Your task to perform on an android device: open app "Messenger Lite" (install if not already installed) and enter user name: "cataclysmic@outlook.com" and password: "victoriously" Image 0: 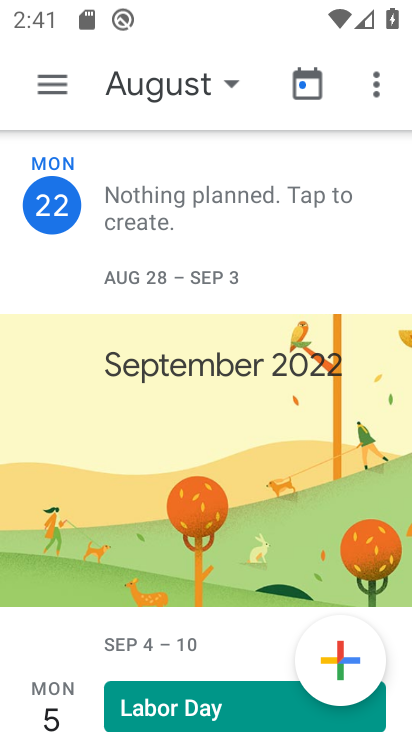
Step 0: press home button
Your task to perform on an android device: open app "Messenger Lite" (install if not already installed) and enter user name: "cataclysmic@outlook.com" and password: "victoriously" Image 1: 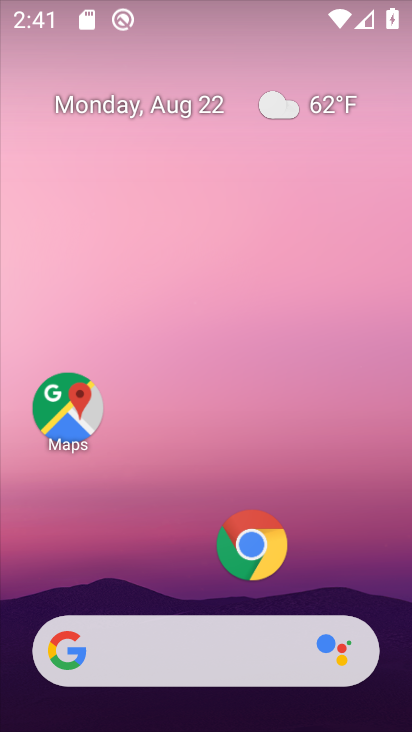
Step 1: drag from (171, 567) to (236, 16)
Your task to perform on an android device: open app "Messenger Lite" (install if not already installed) and enter user name: "cataclysmic@outlook.com" and password: "victoriously" Image 2: 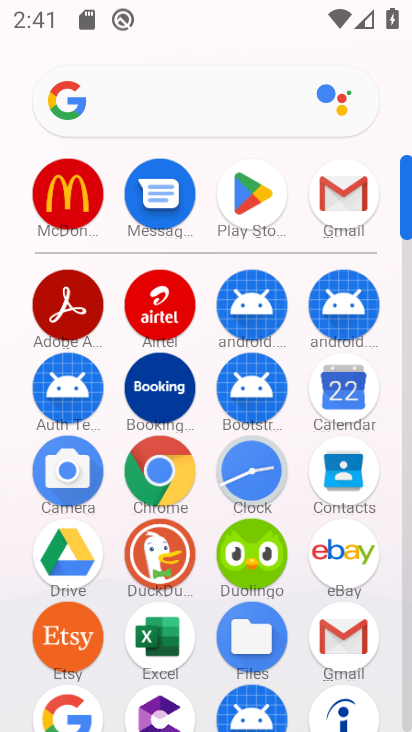
Step 2: click (252, 191)
Your task to perform on an android device: open app "Messenger Lite" (install if not already installed) and enter user name: "cataclysmic@outlook.com" and password: "victoriously" Image 3: 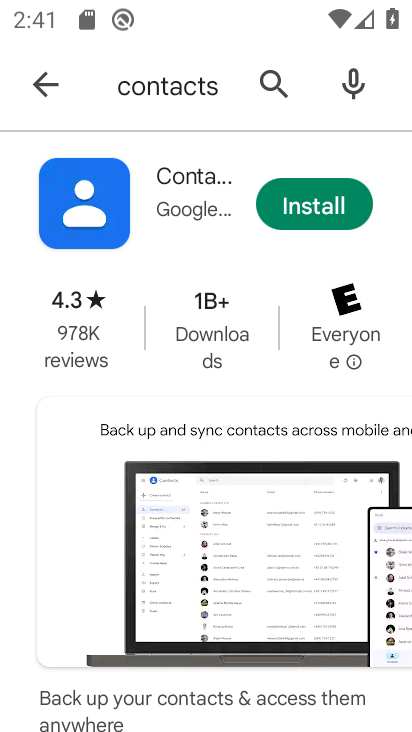
Step 3: click (272, 74)
Your task to perform on an android device: open app "Messenger Lite" (install if not already installed) and enter user name: "cataclysmic@outlook.com" and password: "victoriously" Image 4: 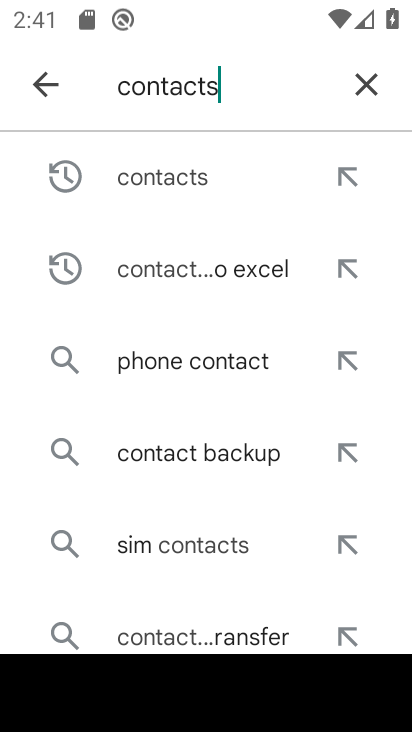
Step 4: click (360, 82)
Your task to perform on an android device: open app "Messenger Lite" (install if not already installed) and enter user name: "cataclysmic@outlook.com" and password: "victoriously" Image 5: 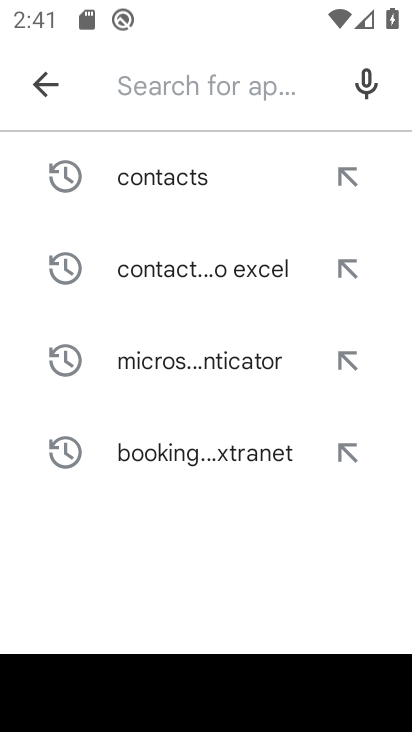
Step 5: click (132, 79)
Your task to perform on an android device: open app "Messenger Lite" (install if not already installed) and enter user name: "cataclysmic@outlook.com" and password: "victoriously" Image 6: 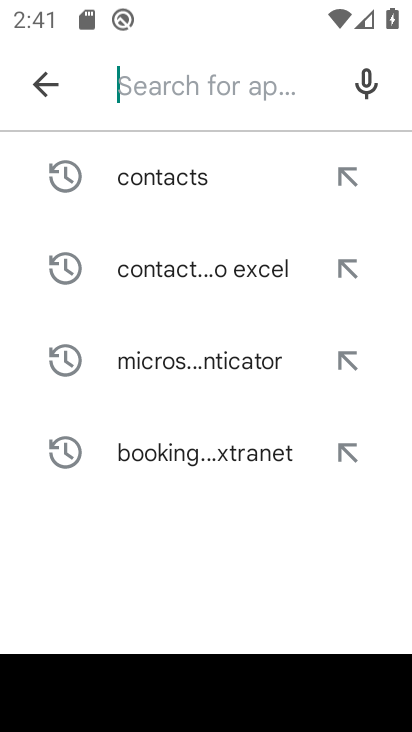
Step 6: type "Messenger Lite"
Your task to perform on an android device: open app "Messenger Lite" (install if not already installed) and enter user name: "cataclysmic@outlook.com" and password: "victoriously" Image 7: 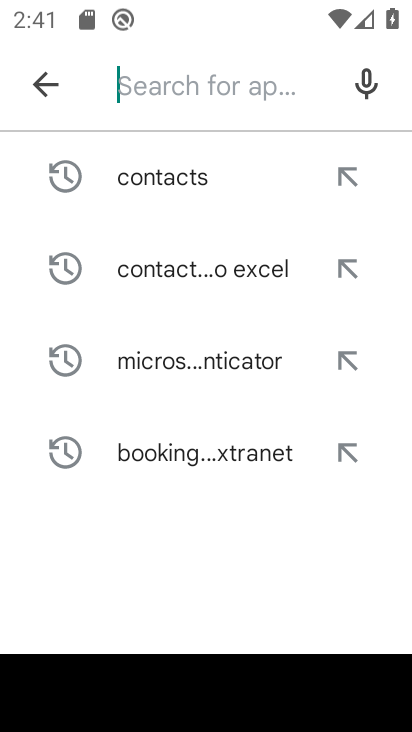
Step 7: click (240, 578)
Your task to perform on an android device: open app "Messenger Lite" (install if not already installed) and enter user name: "cataclysmic@outlook.com" and password: "victoriously" Image 8: 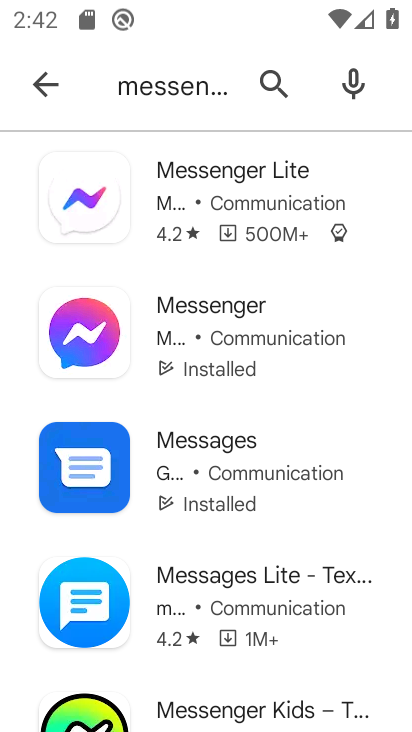
Step 8: click (248, 177)
Your task to perform on an android device: open app "Messenger Lite" (install if not already installed) and enter user name: "cataclysmic@outlook.com" and password: "victoriously" Image 9: 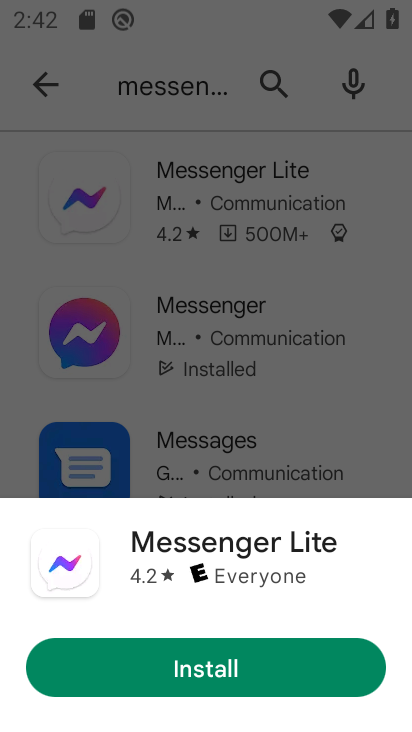
Step 9: click (233, 653)
Your task to perform on an android device: open app "Messenger Lite" (install if not already installed) and enter user name: "cataclysmic@outlook.com" and password: "victoriously" Image 10: 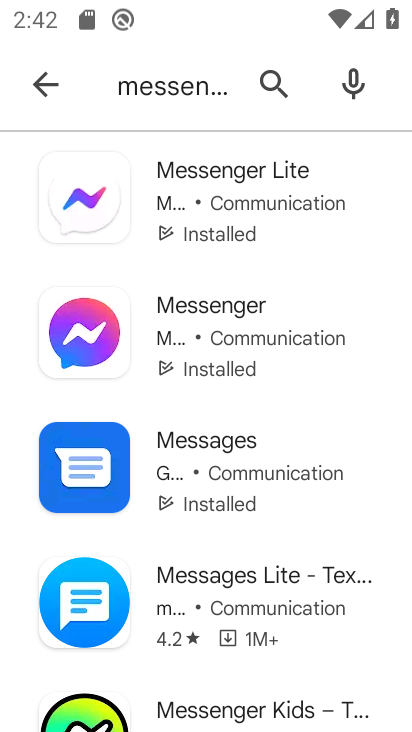
Step 10: click (214, 184)
Your task to perform on an android device: open app "Messenger Lite" (install if not already installed) and enter user name: "cataclysmic@outlook.com" and password: "victoriously" Image 11: 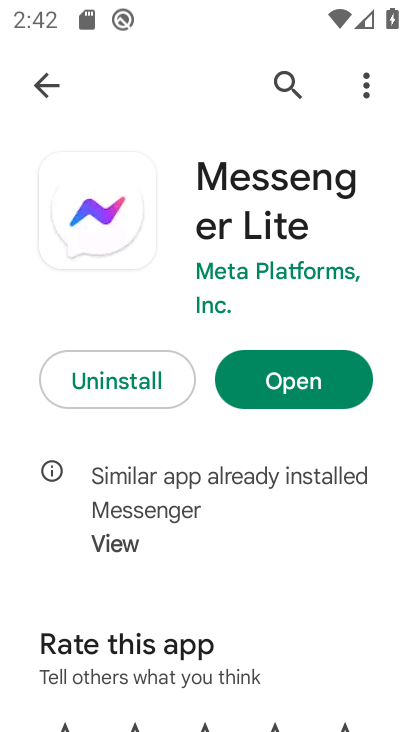
Step 11: click (327, 394)
Your task to perform on an android device: open app "Messenger Lite" (install if not already installed) and enter user name: "cataclysmic@outlook.com" and password: "victoriously" Image 12: 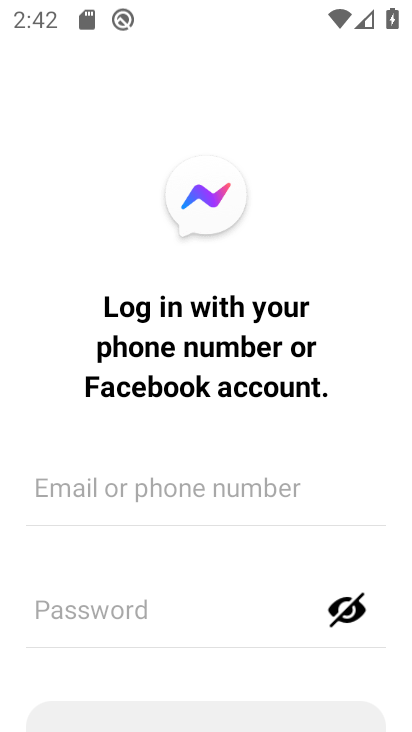
Step 12: click (101, 460)
Your task to perform on an android device: open app "Messenger Lite" (install if not already installed) and enter user name: "cataclysmic@outlook.com" and password: "victoriously" Image 13: 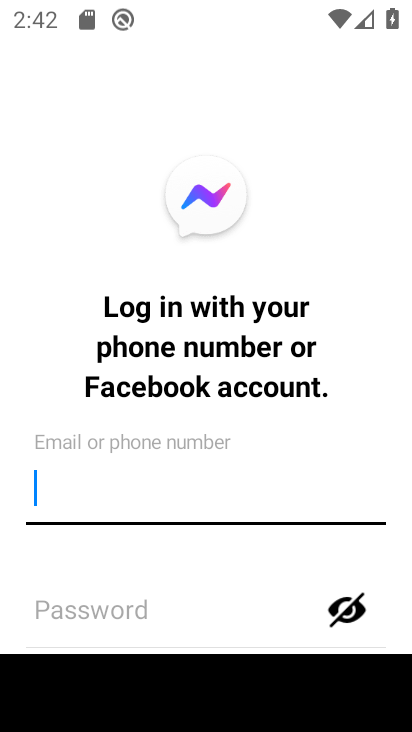
Step 13: click (94, 492)
Your task to perform on an android device: open app "Messenger Lite" (install if not already installed) and enter user name: "cataclysmic@outlook.com" and password: "victoriously" Image 14: 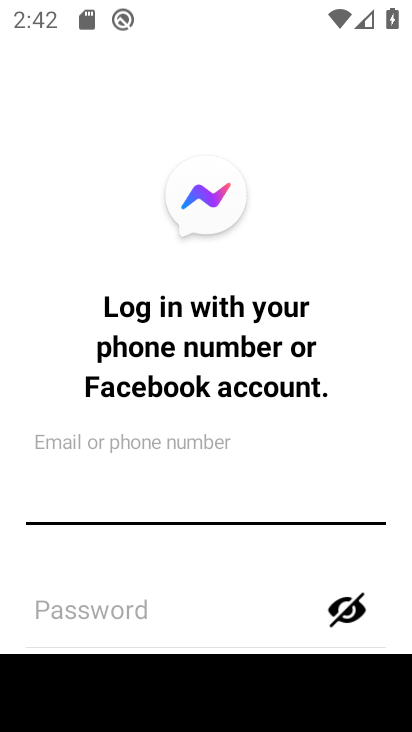
Step 14: type "cataclysmic@outlook.com"
Your task to perform on an android device: open app "Messenger Lite" (install if not already installed) and enter user name: "cataclysmic@outlook.com" and password: "victoriously" Image 15: 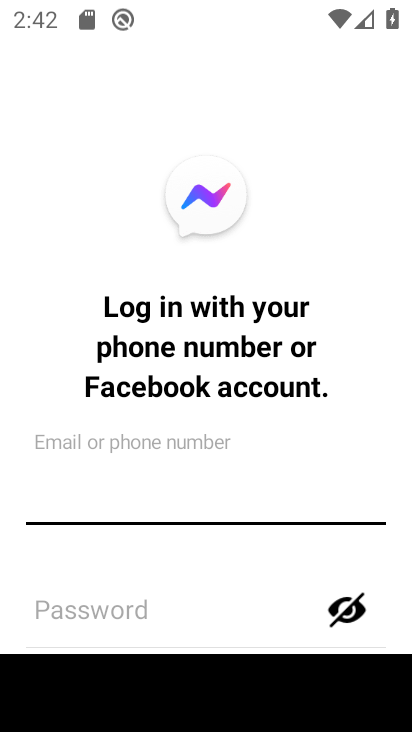
Step 15: click (200, 617)
Your task to perform on an android device: open app "Messenger Lite" (install if not already installed) and enter user name: "cataclysmic@outlook.com" and password: "victoriously" Image 16: 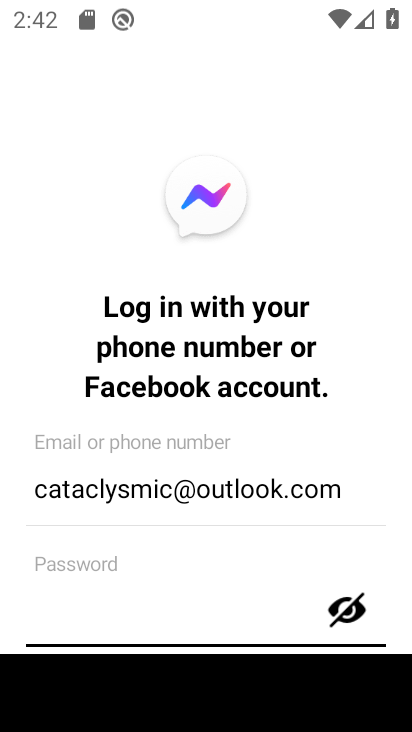
Step 16: click (100, 613)
Your task to perform on an android device: open app "Messenger Lite" (install if not already installed) and enter user name: "cataclysmic@outlook.com" and password: "victoriously" Image 17: 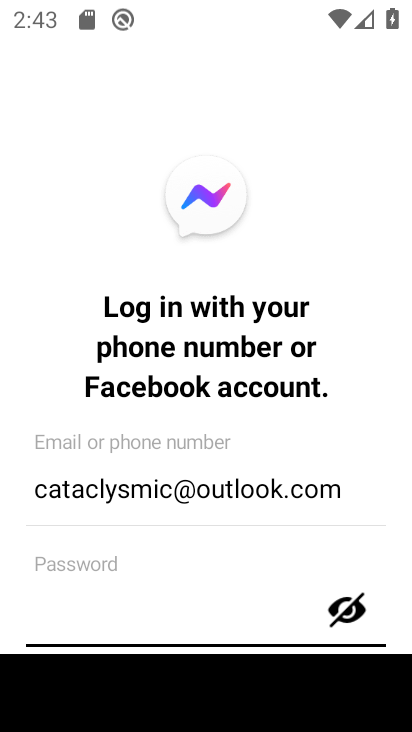
Step 17: type "victoriously"
Your task to perform on an android device: open app "Messenger Lite" (install if not already installed) and enter user name: "cataclysmic@outlook.com" and password: "victoriously" Image 18: 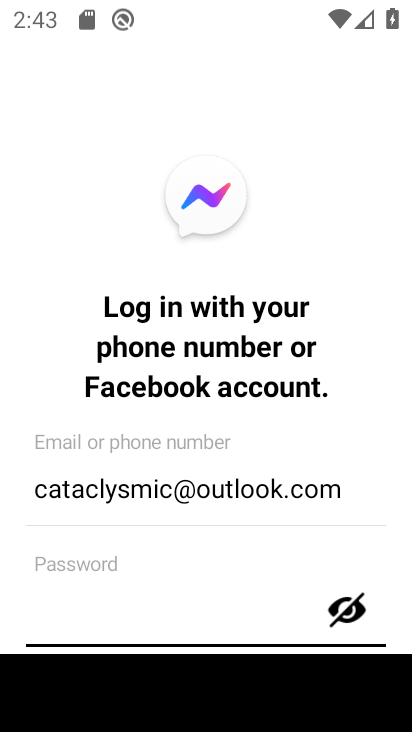
Step 18: click (135, 536)
Your task to perform on an android device: open app "Messenger Lite" (install if not already installed) and enter user name: "cataclysmic@outlook.com" and password: "victoriously" Image 19: 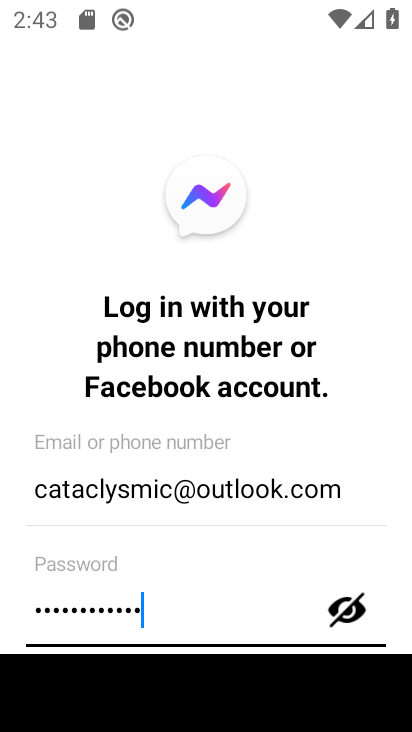
Step 19: task complete